Your task to perform on an android device: allow cookies in the chrome app Image 0: 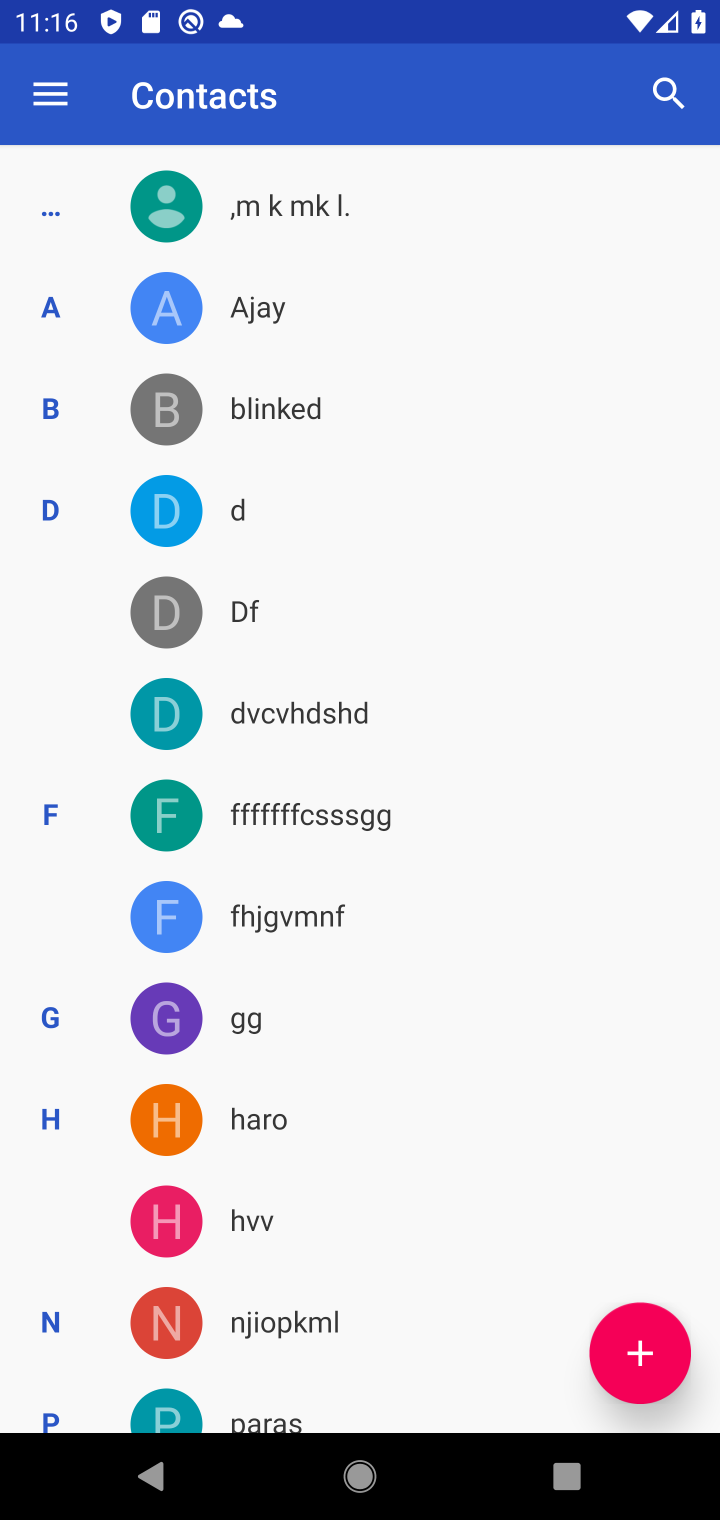
Step 0: press home button
Your task to perform on an android device: allow cookies in the chrome app Image 1: 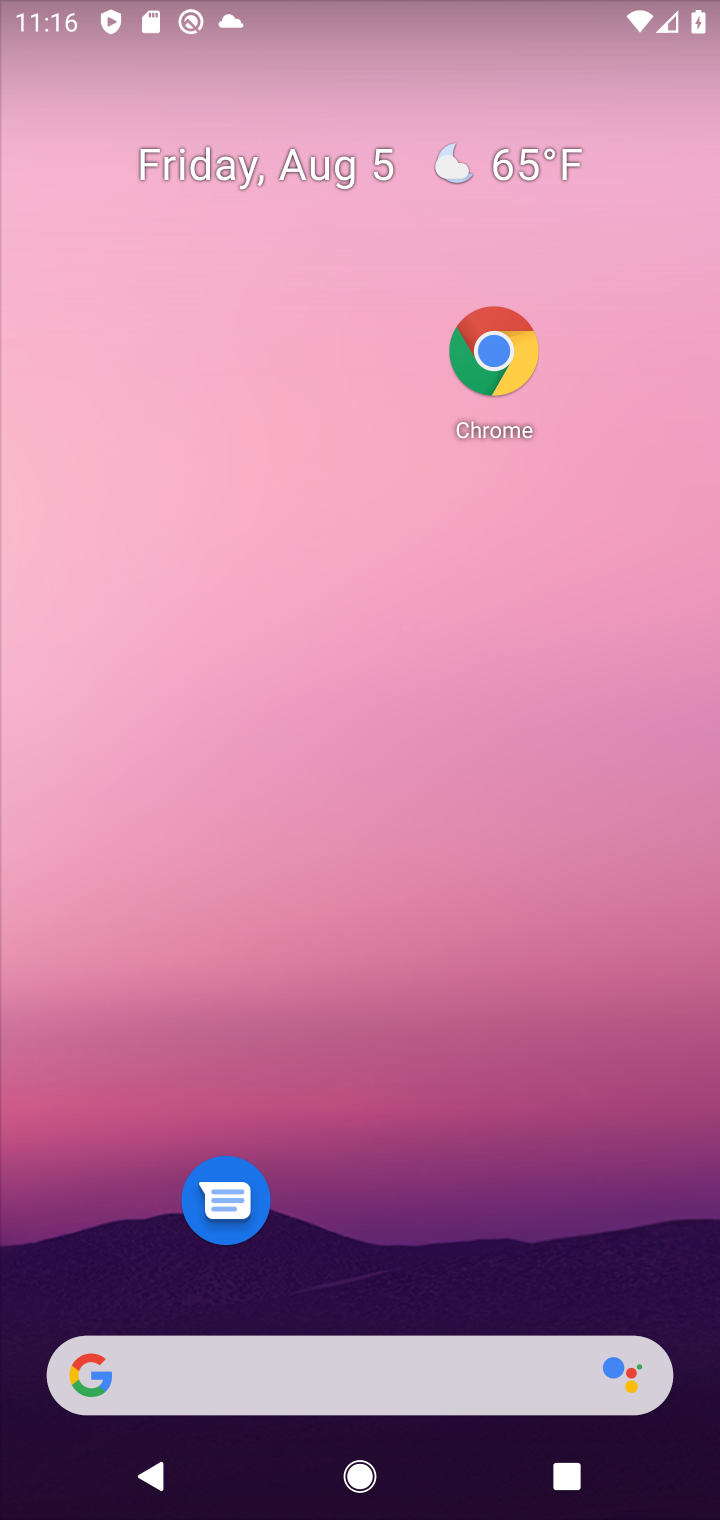
Step 1: drag from (703, 493) to (714, 227)
Your task to perform on an android device: allow cookies in the chrome app Image 2: 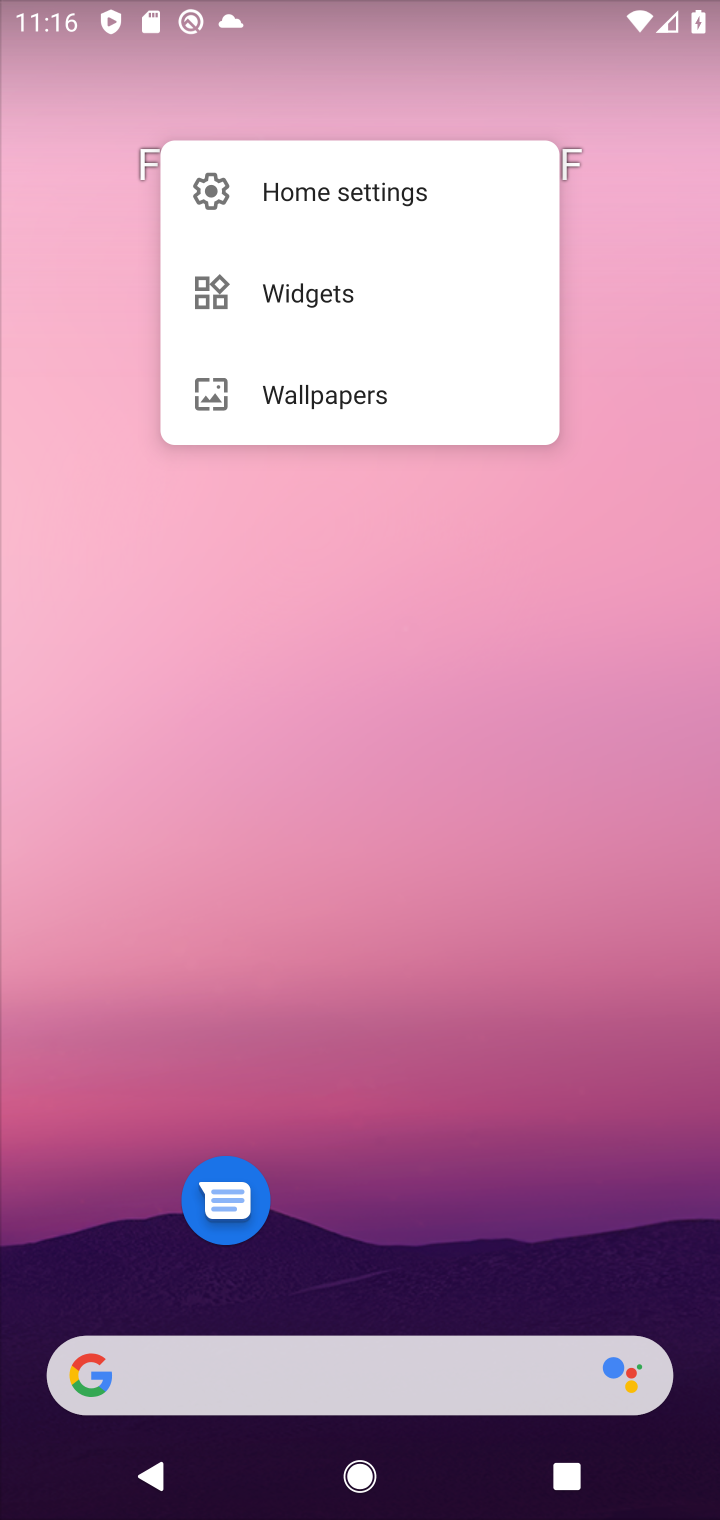
Step 2: click (572, 764)
Your task to perform on an android device: allow cookies in the chrome app Image 3: 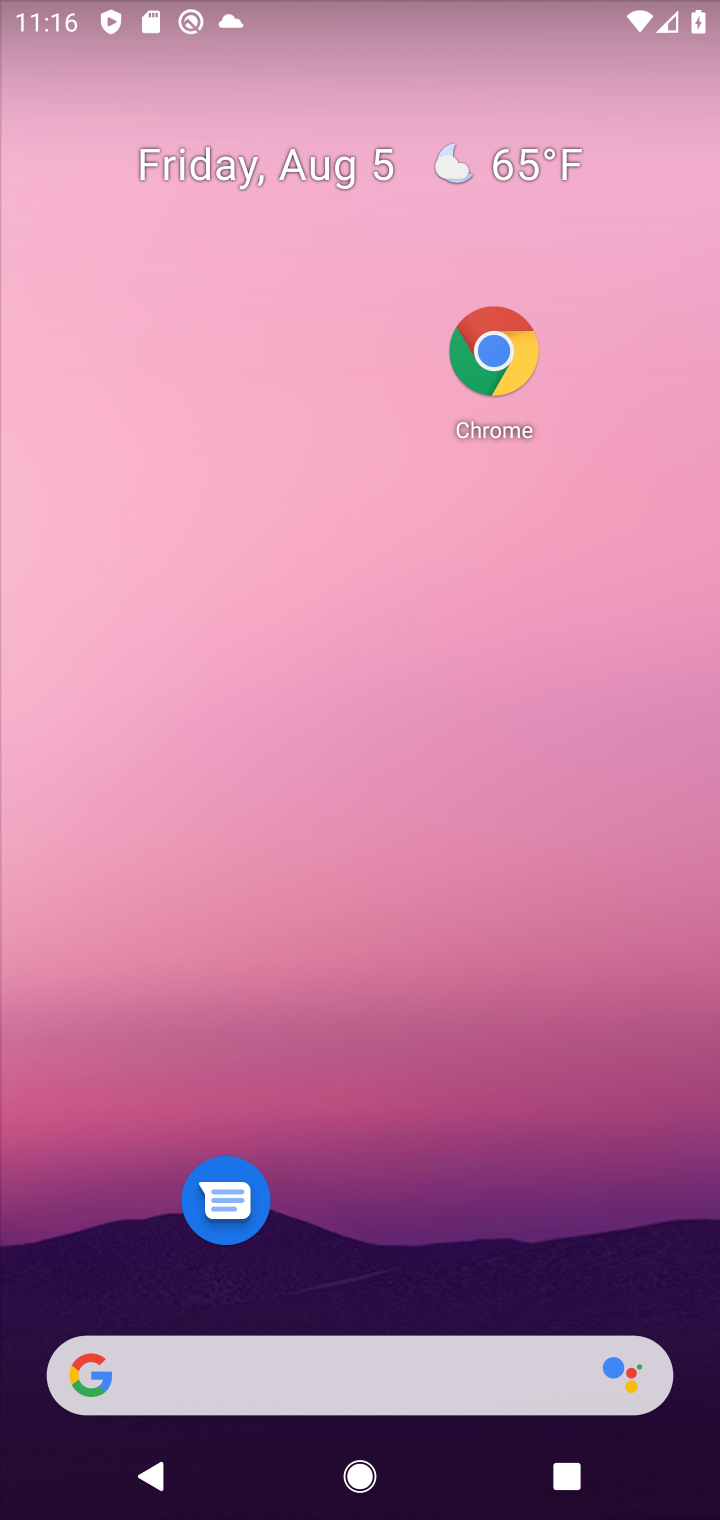
Step 3: click (520, 373)
Your task to perform on an android device: allow cookies in the chrome app Image 4: 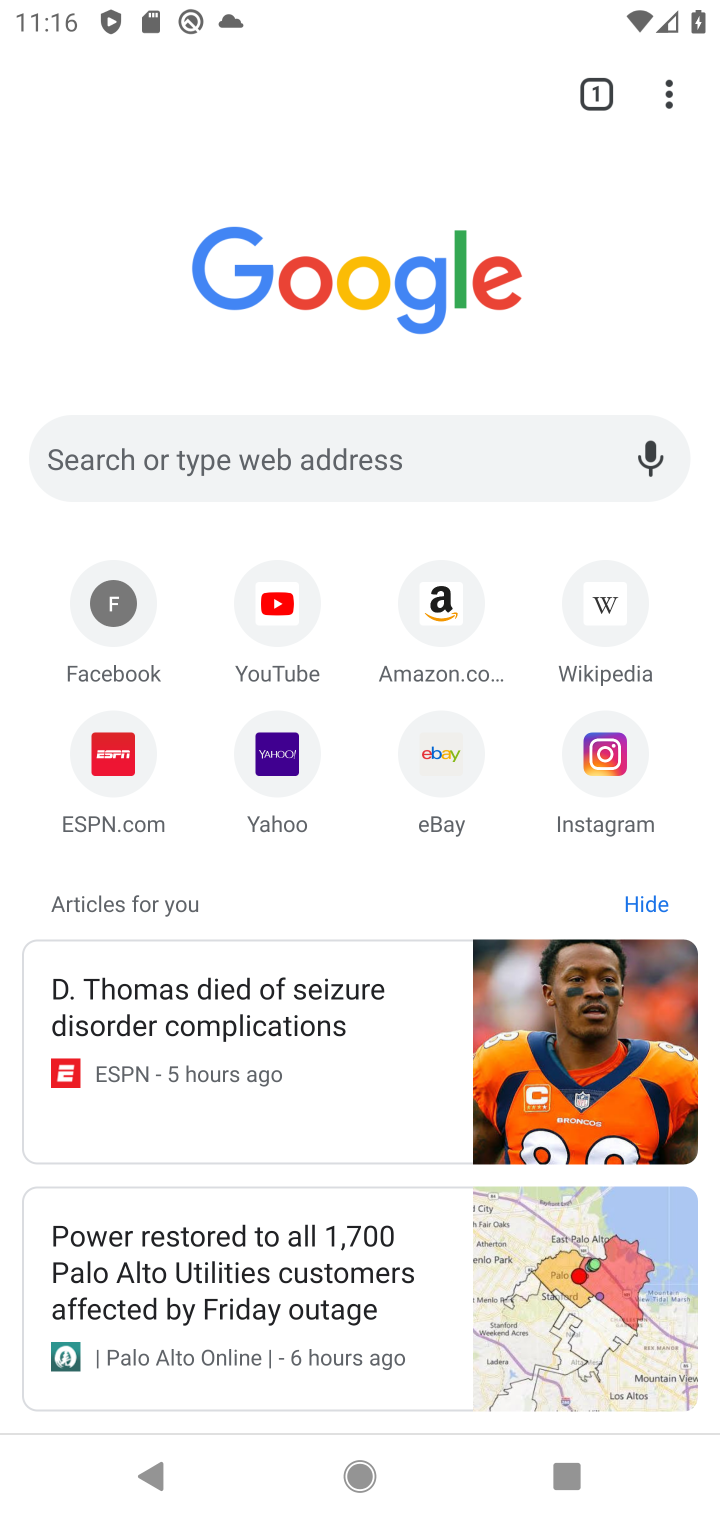
Step 4: click (671, 84)
Your task to perform on an android device: allow cookies in the chrome app Image 5: 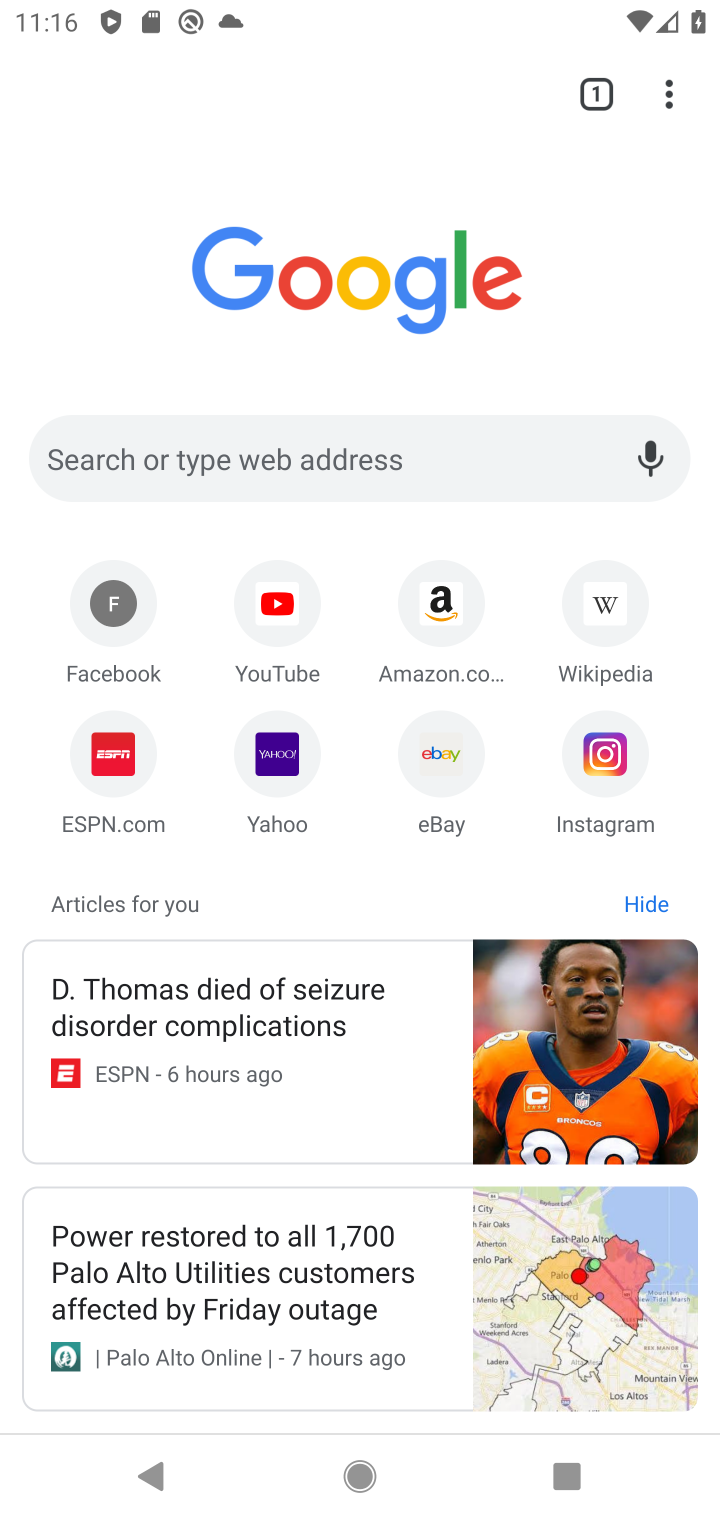
Step 5: click (676, 88)
Your task to perform on an android device: allow cookies in the chrome app Image 6: 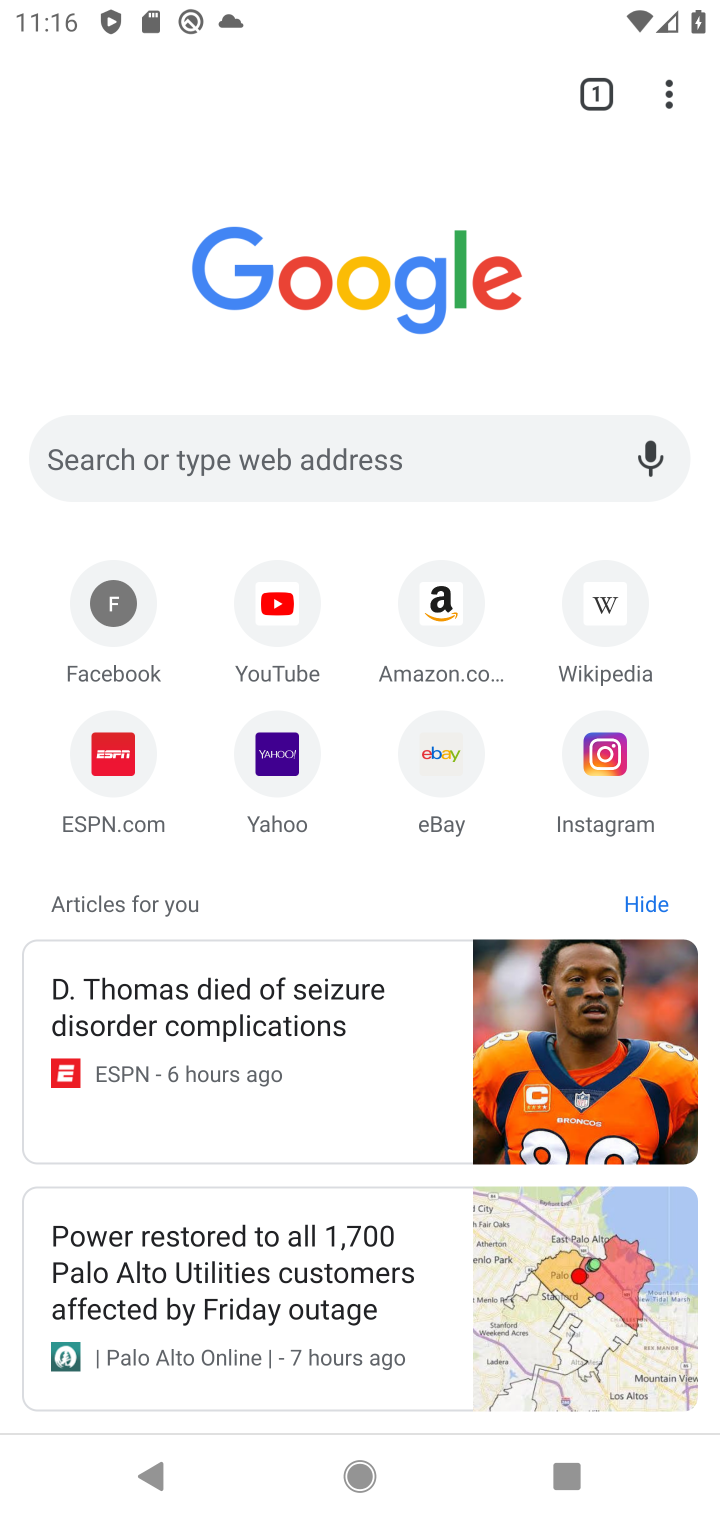
Step 6: click (677, 96)
Your task to perform on an android device: allow cookies in the chrome app Image 7: 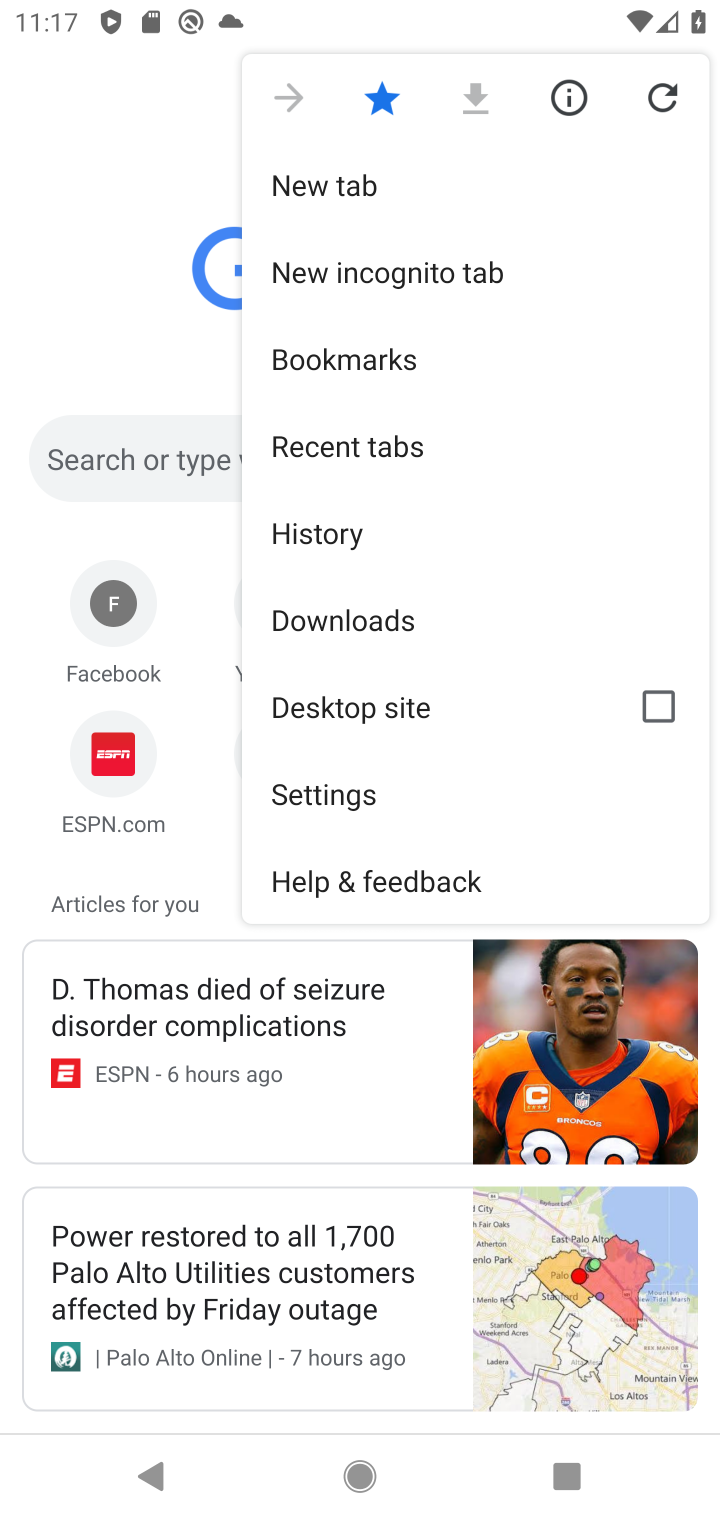
Step 7: click (349, 803)
Your task to perform on an android device: allow cookies in the chrome app Image 8: 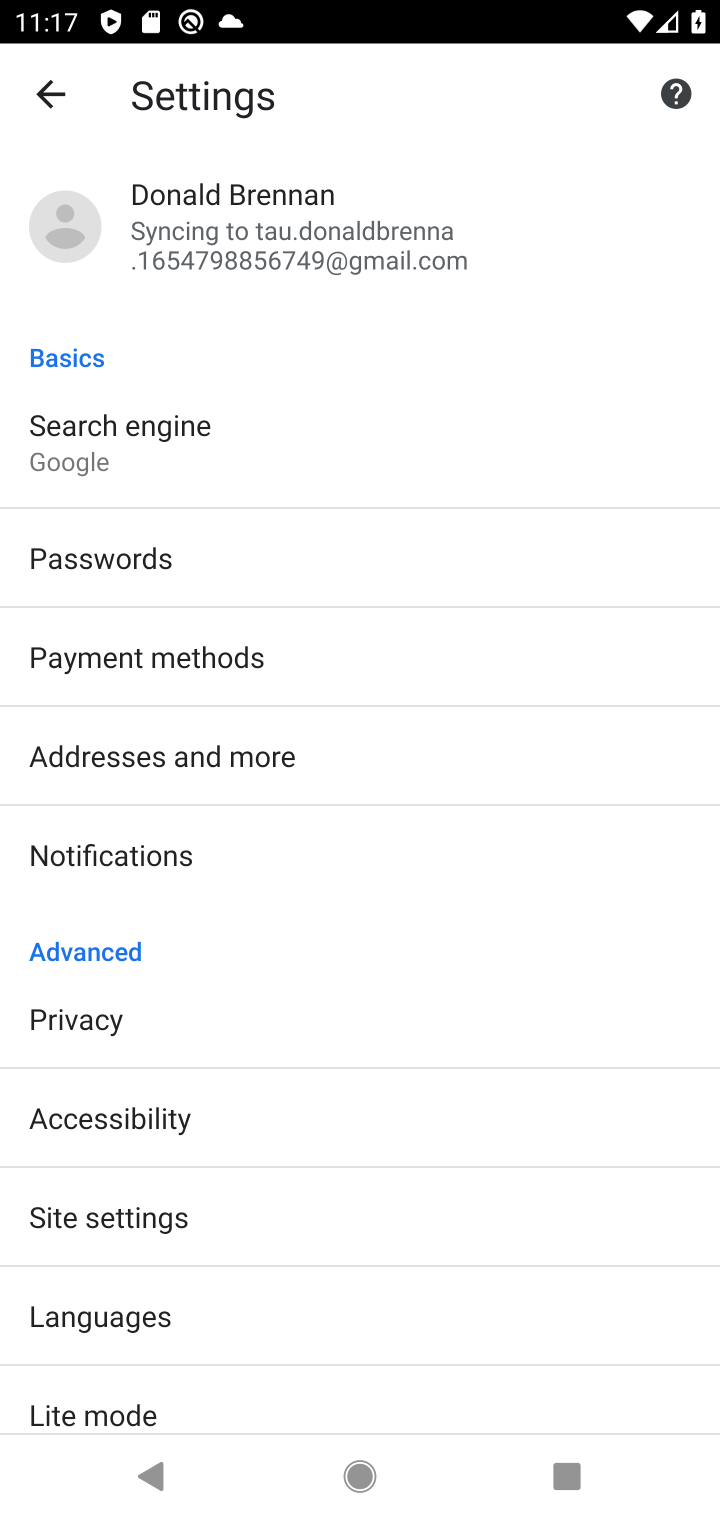
Step 8: click (75, 90)
Your task to perform on an android device: allow cookies in the chrome app Image 9: 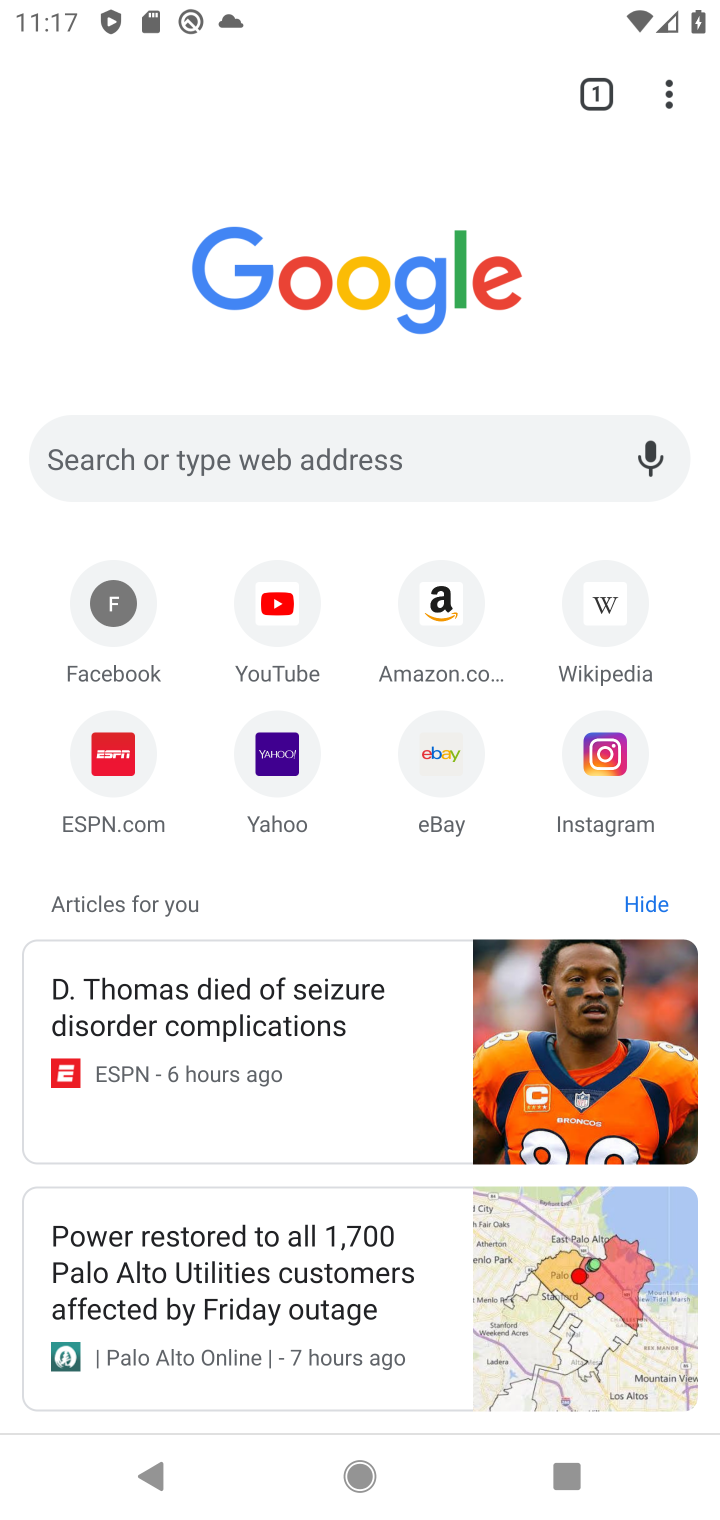
Step 9: click (674, 100)
Your task to perform on an android device: allow cookies in the chrome app Image 10: 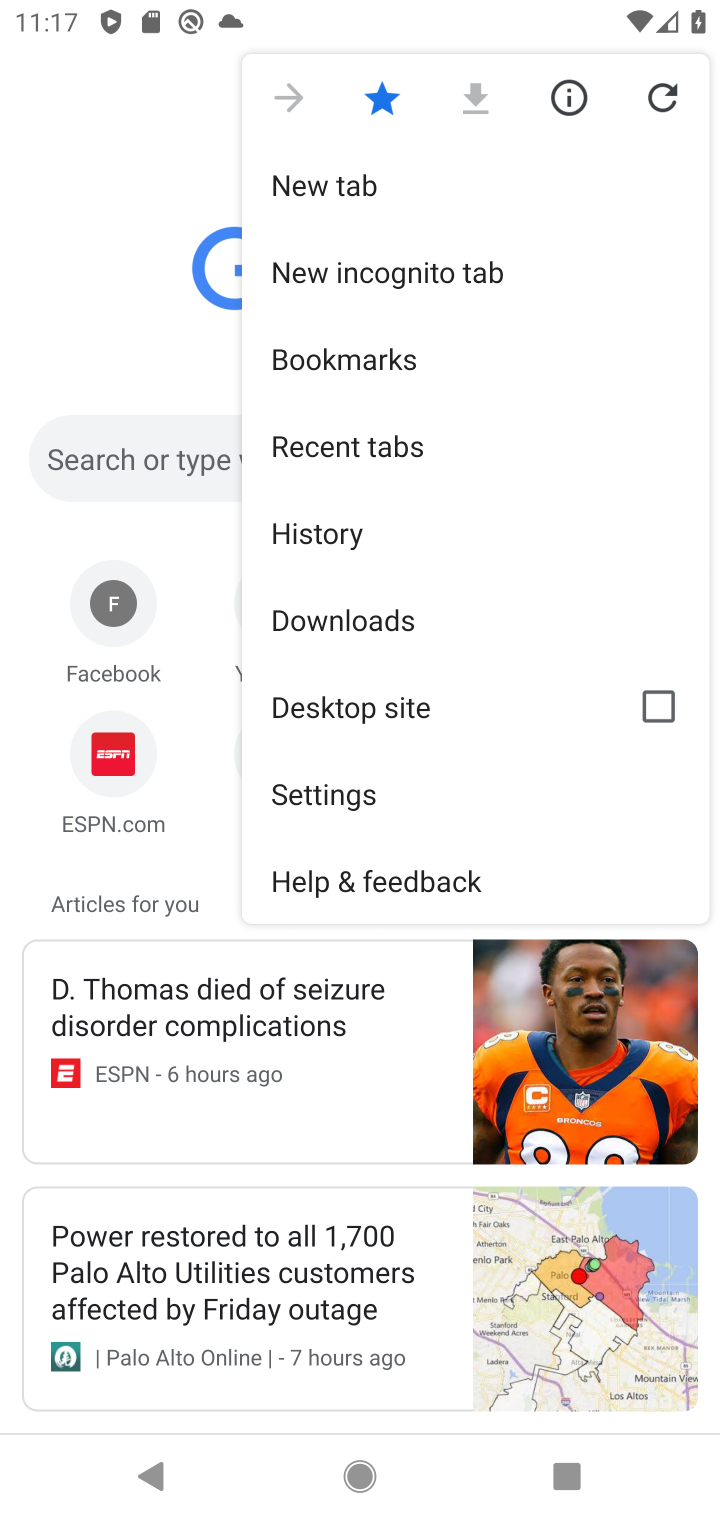
Step 10: click (374, 531)
Your task to perform on an android device: allow cookies in the chrome app Image 11: 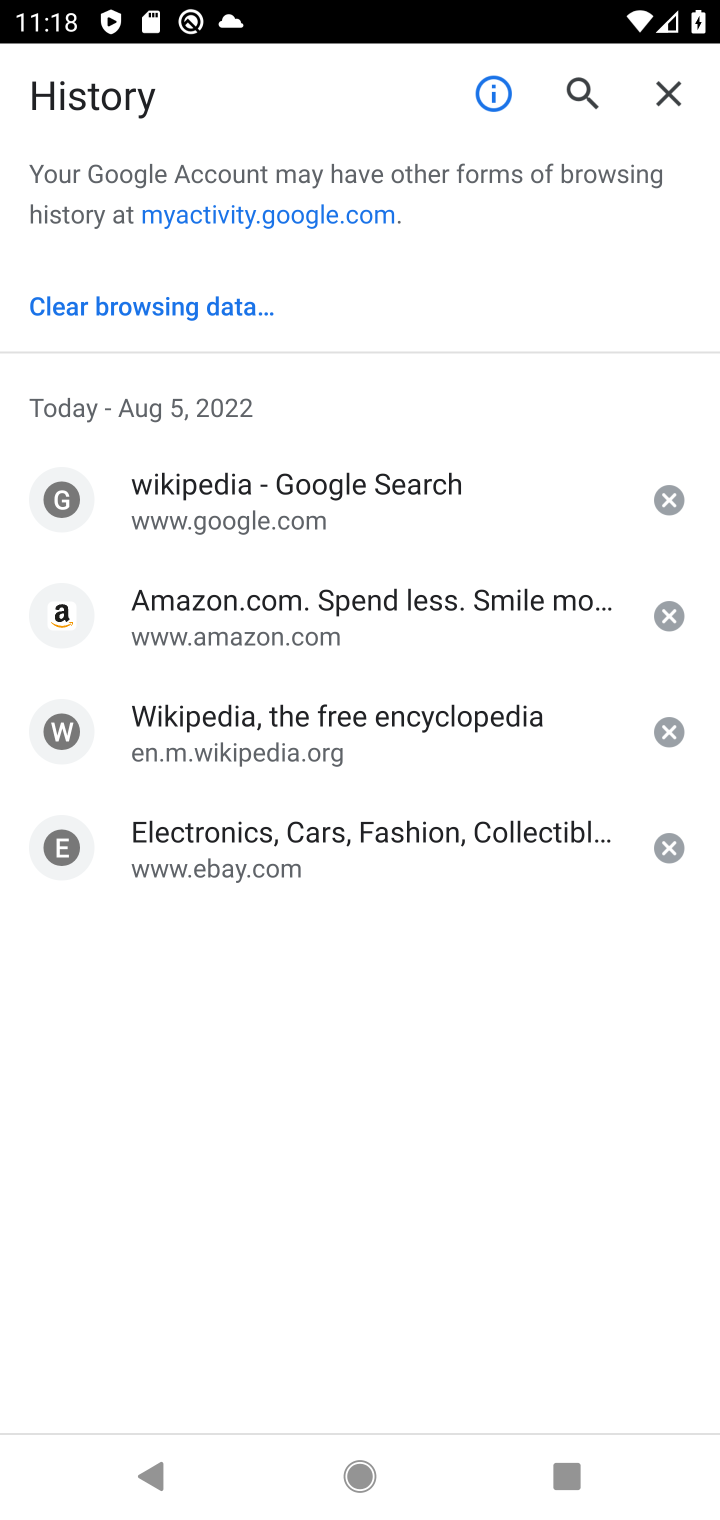
Step 11: click (139, 313)
Your task to perform on an android device: allow cookies in the chrome app Image 12: 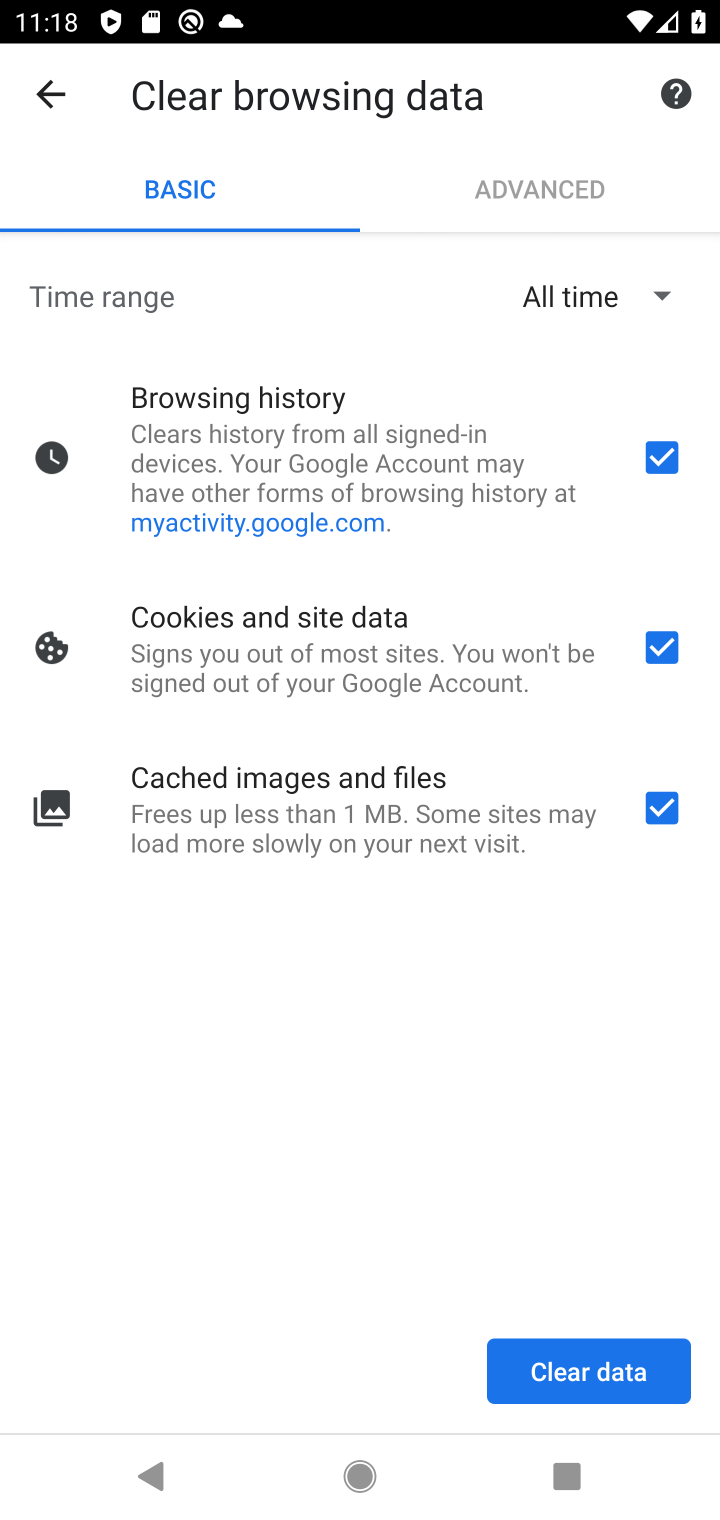
Step 12: click (663, 818)
Your task to perform on an android device: allow cookies in the chrome app Image 13: 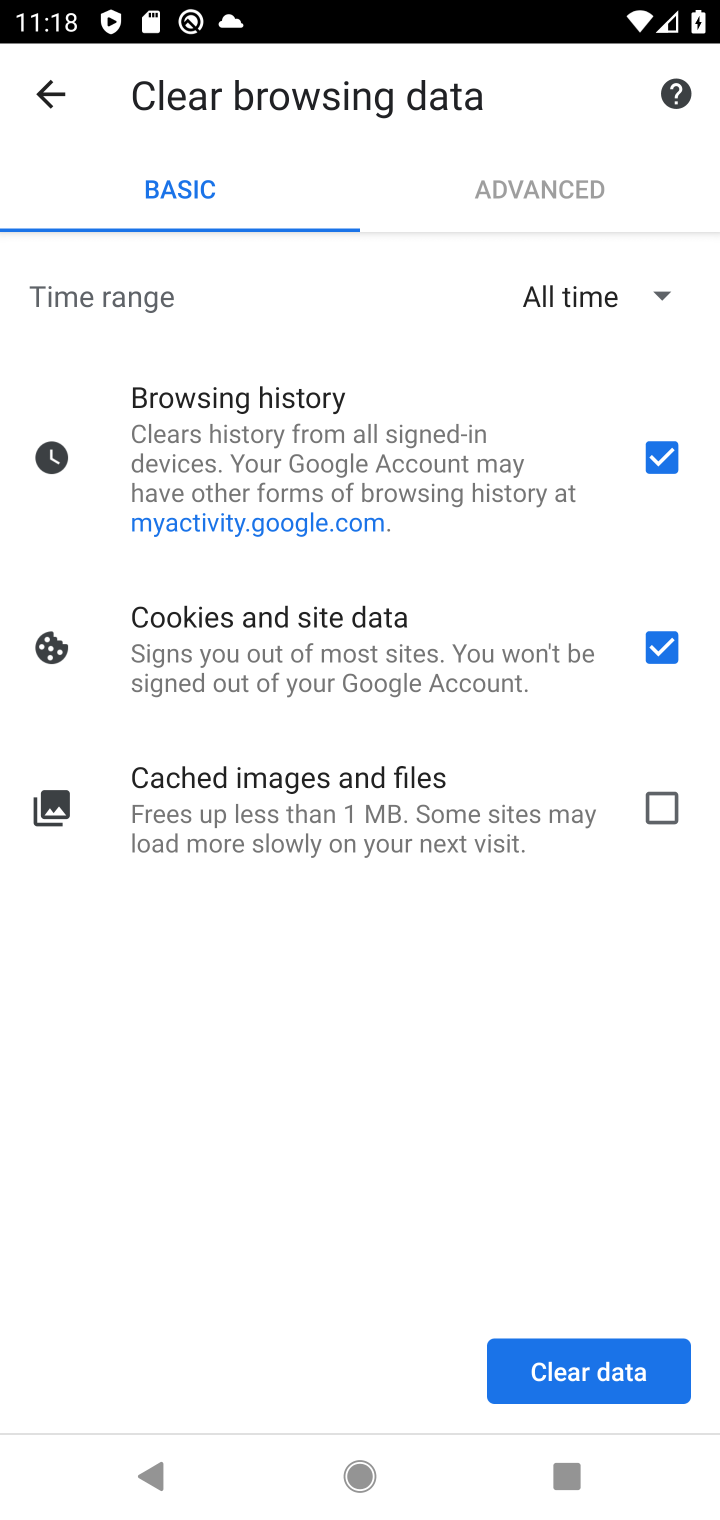
Step 13: click (673, 442)
Your task to perform on an android device: allow cookies in the chrome app Image 14: 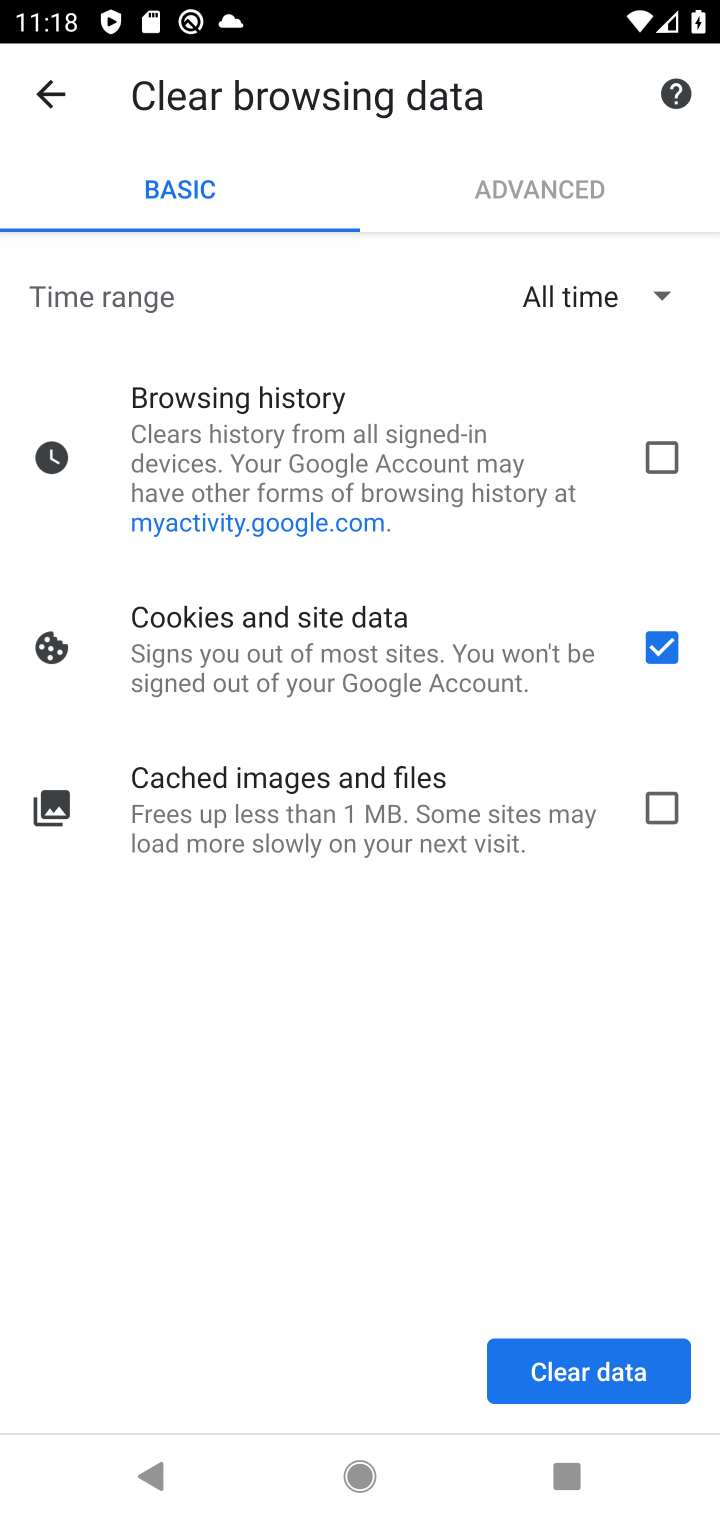
Step 14: click (610, 1377)
Your task to perform on an android device: allow cookies in the chrome app Image 15: 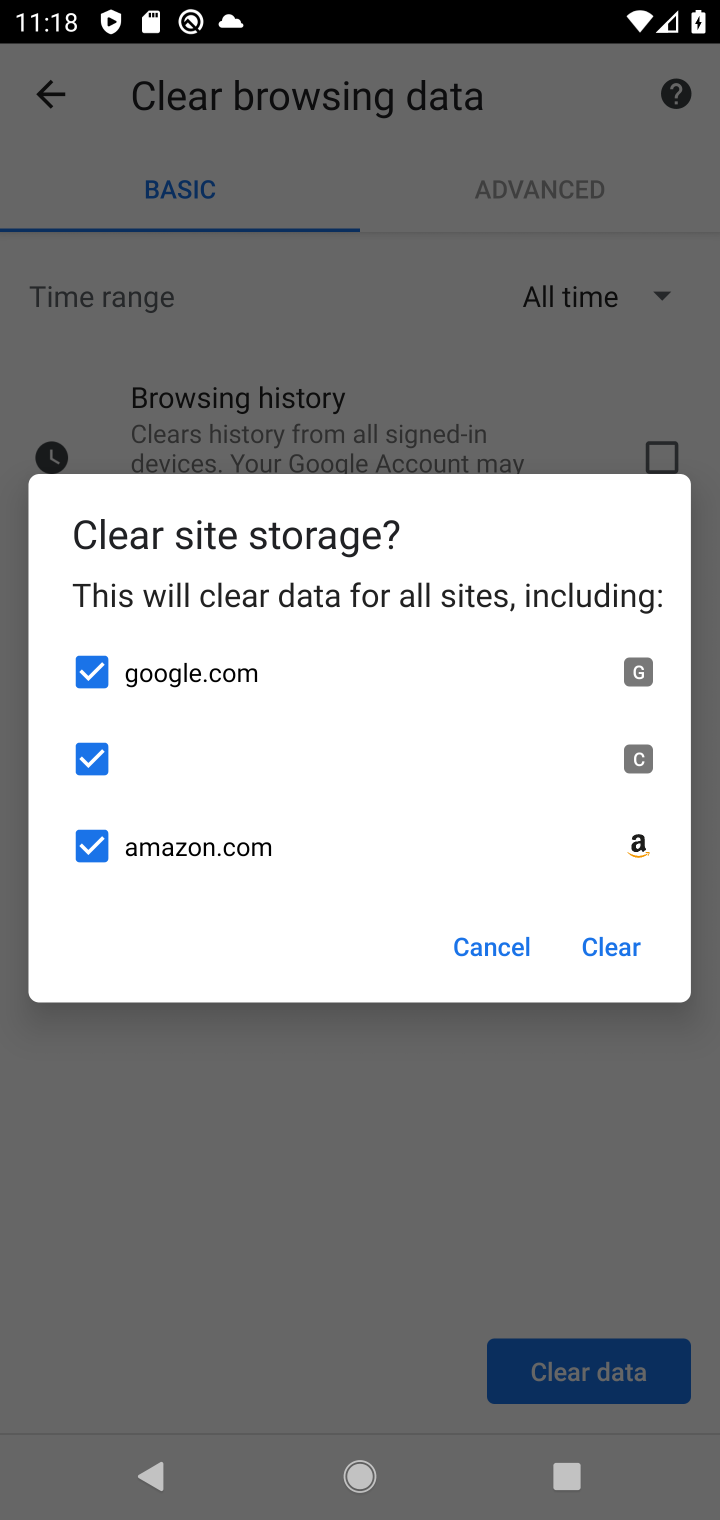
Step 15: click (602, 951)
Your task to perform on an android device: allow cookies in the chrome app Image 16: 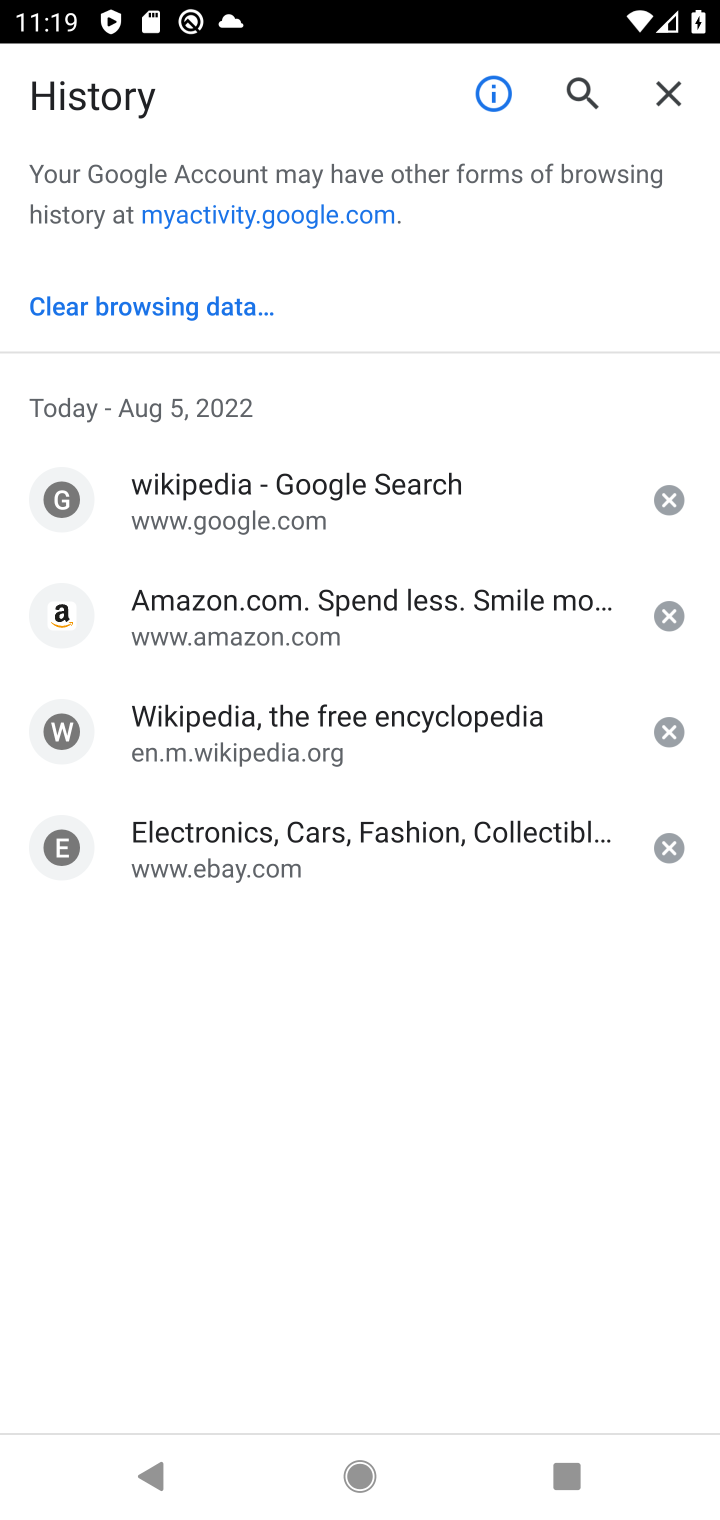
Step 16: task complete